Your task to perform on an android device: What is the capital of Spain? Image 0: 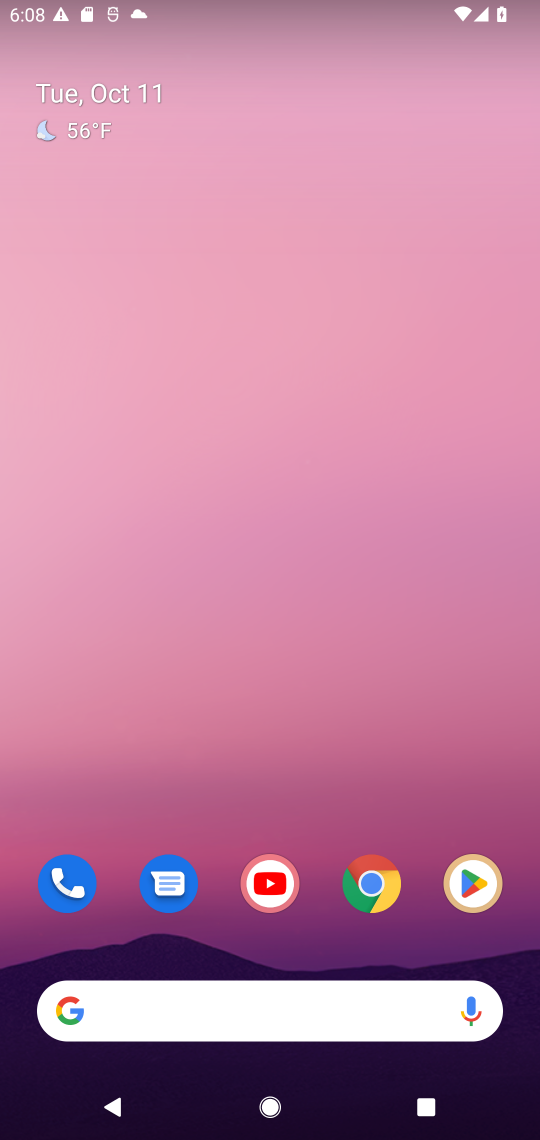
Step 0: drag from (334, 951) to (294, 21)
Your task to perform on an android device: What is the capital of Spain? Image 1: 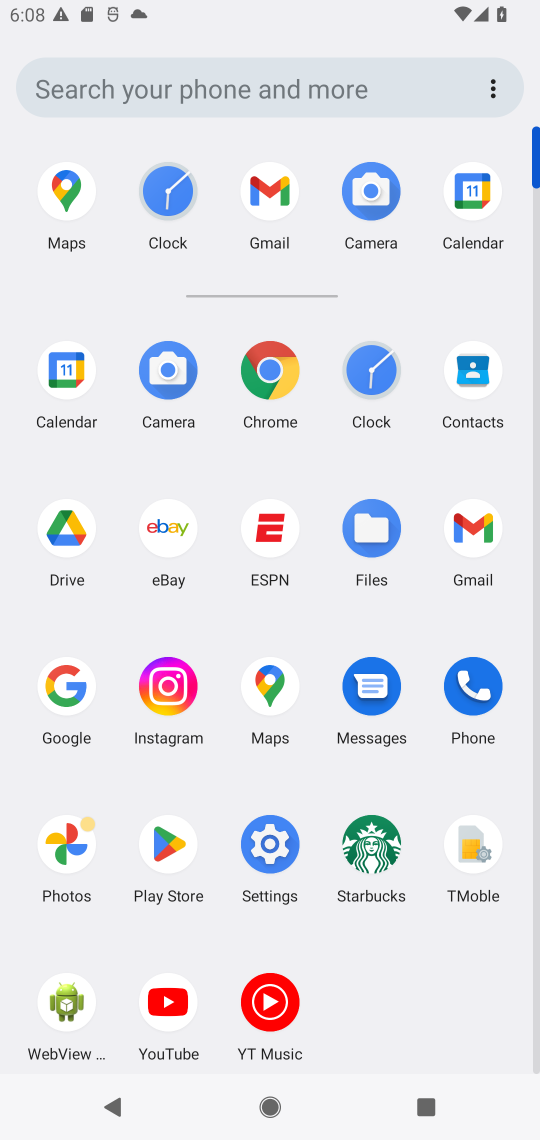
Step 1: click (266, 383)
Your task to perform on an android device: What is the capital of Spain? Image 2: 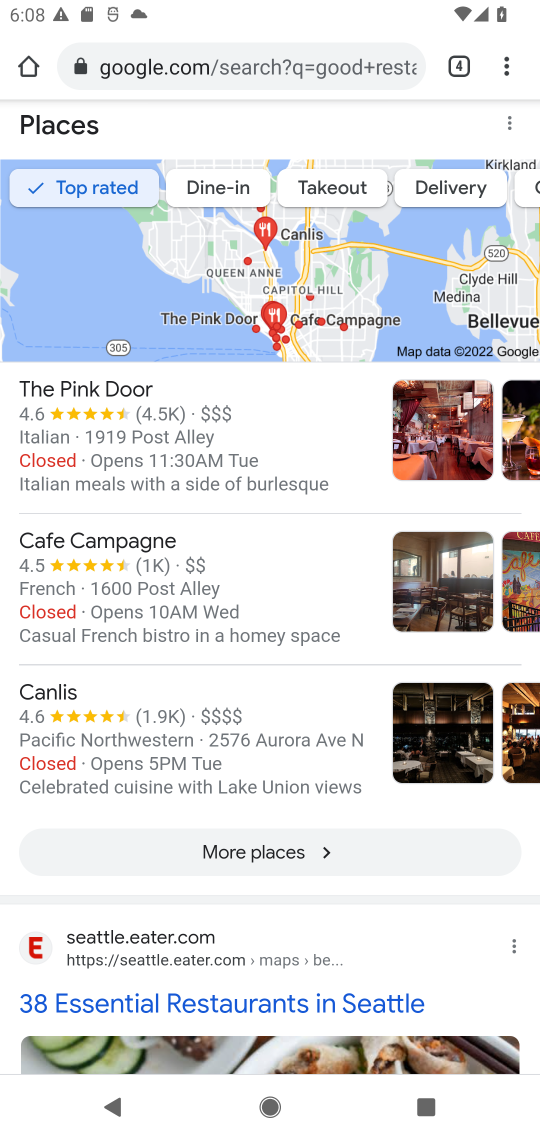
Step 2: click (230, 78)
Your task to perform on an android device: What is the capital of Spain? Image 3: 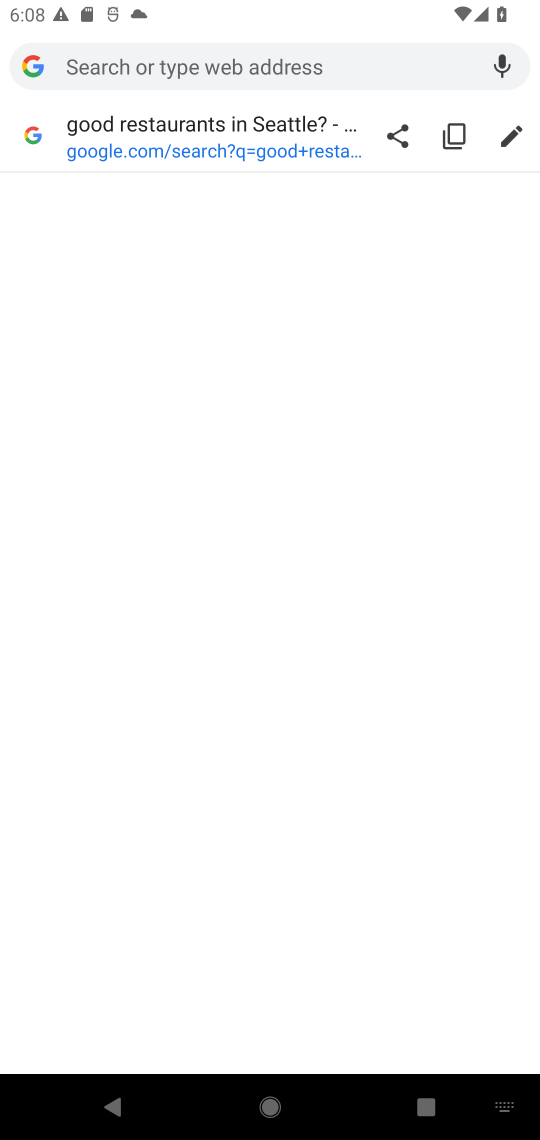
Step 3: type "What is the capital of Spain?"
Your task to perform on an android device: What is the capital of Spain? Image 4: 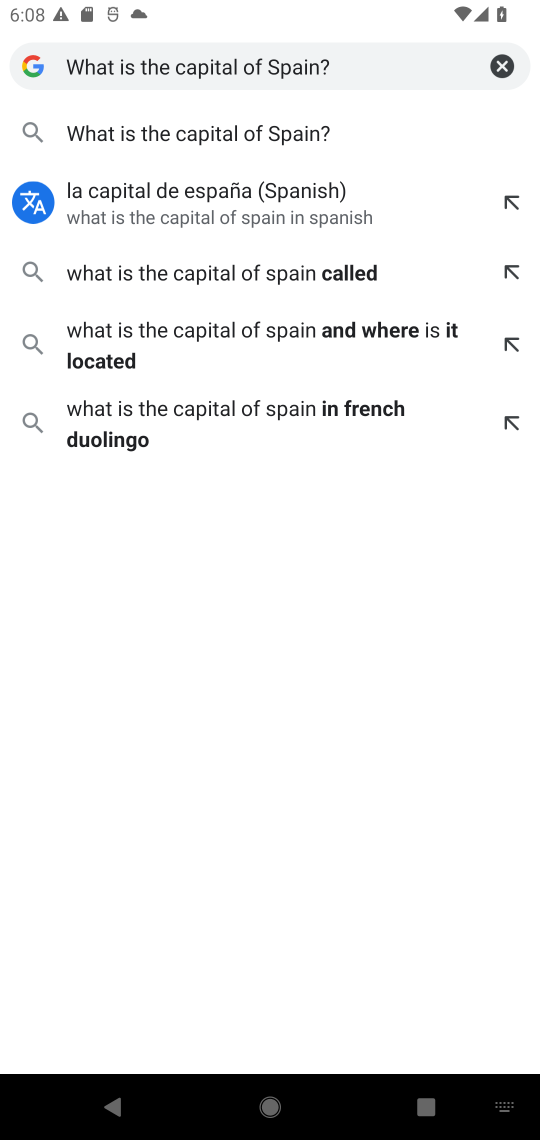
Step 4: press enter
Your task to perform on an android device: What is the capital of Spain? Image 5: 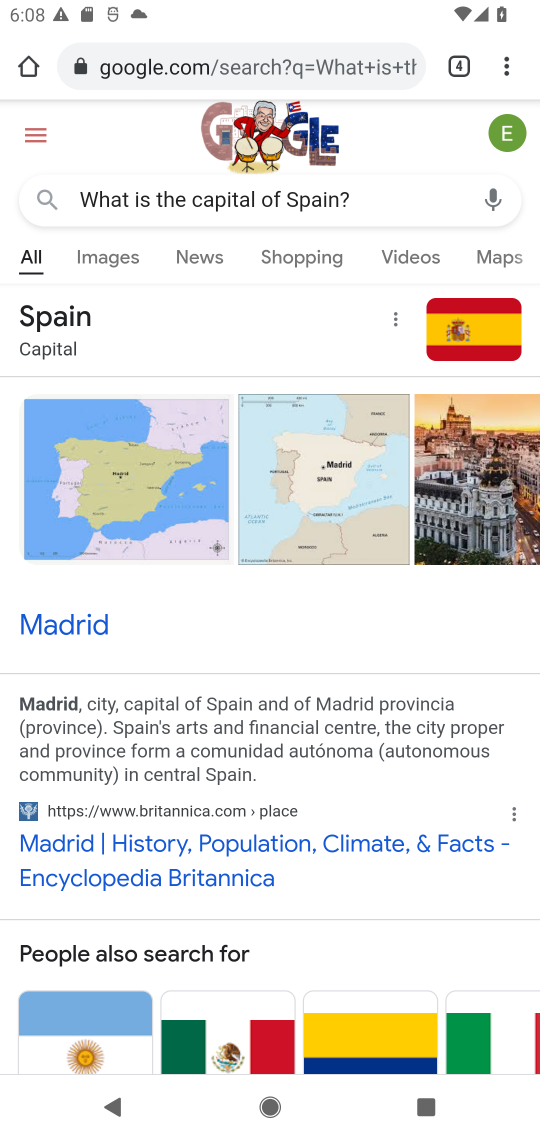
Step 5: task complete